Your task to perform on an android device: Open accessibility settings Image 0: 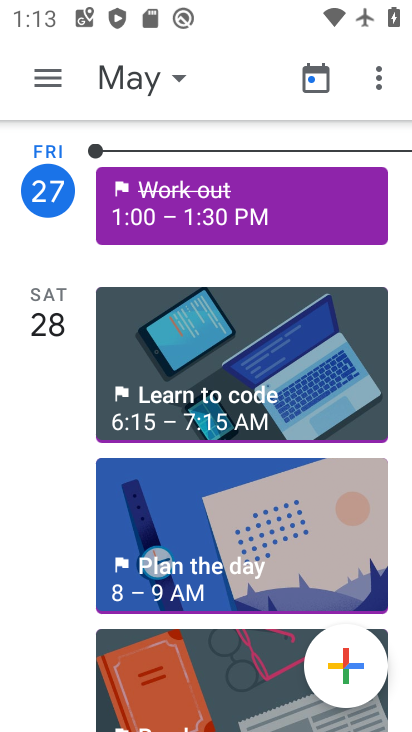
Step 0: press home button
Your task to perform on an android device: Open accessibility settings Image 1: 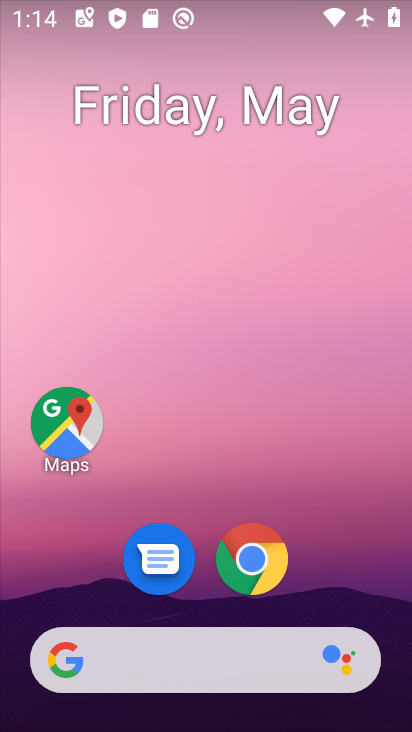
Step 1: drag from (332, 558) to (235, 137)
Your task to perform on an android device: Open accessibility settings Image 2: 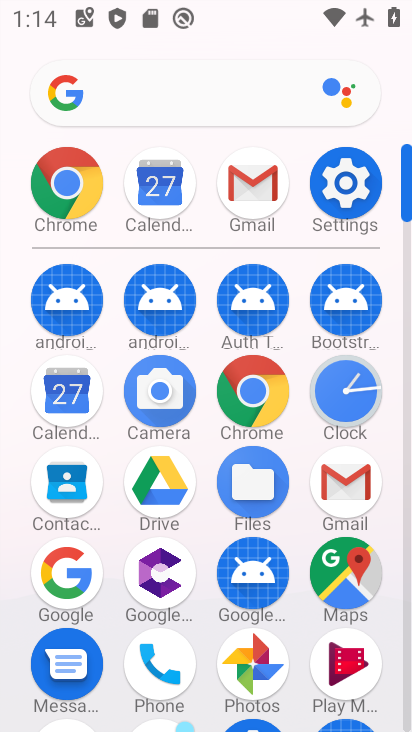
Step 2: click (330, 176)
Your task to perform on an android device: Open accessibility settings Image 3: 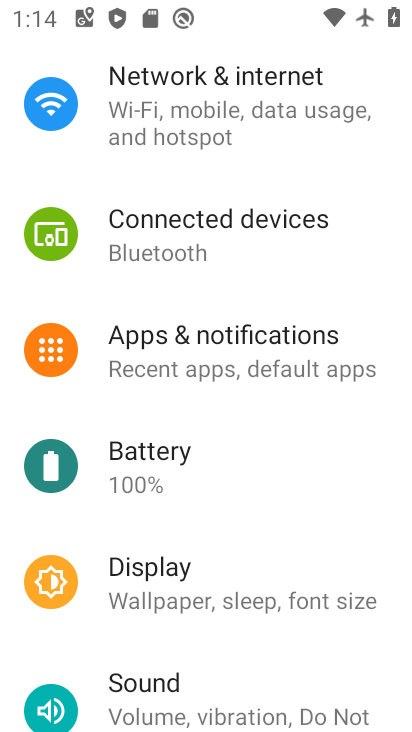
Step 3: drag from (270, 595) to (279, 157)
Your task to perform on an android device: Open accessibility settings Image 4: 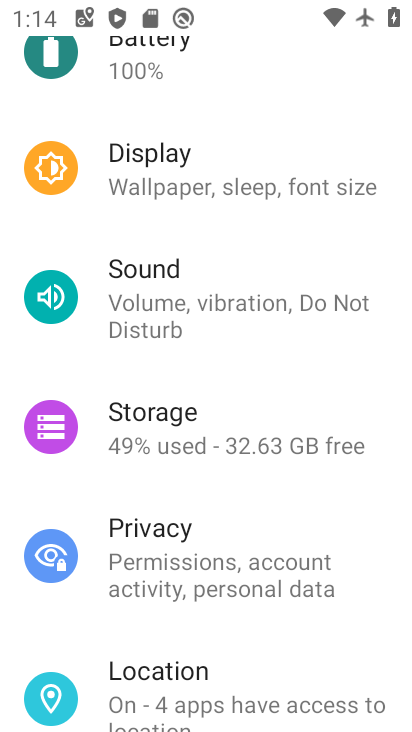
Step 4: drag from (298, 586) to (288, 280)
Your task to perform on an android device: Open accessibility settings Image 5: 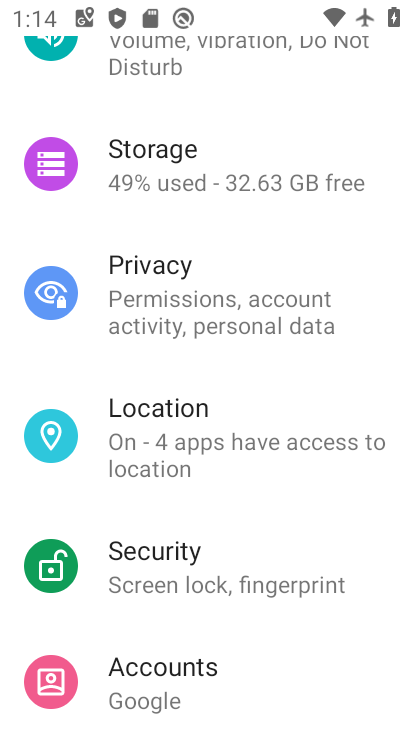
Step 5: click (289, 270)
Your task to perform on an android device: Open accessibility settings Image 6: 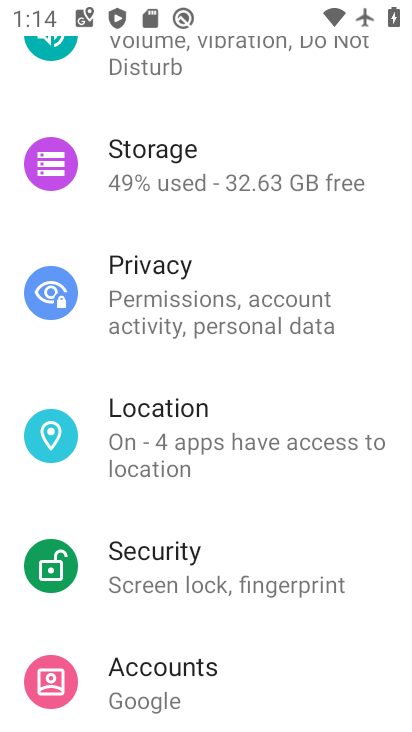
Step 6: drag from (184, 530) to (237, 259)
Your task to perform on an android device: Open accessibility settings Image 7: 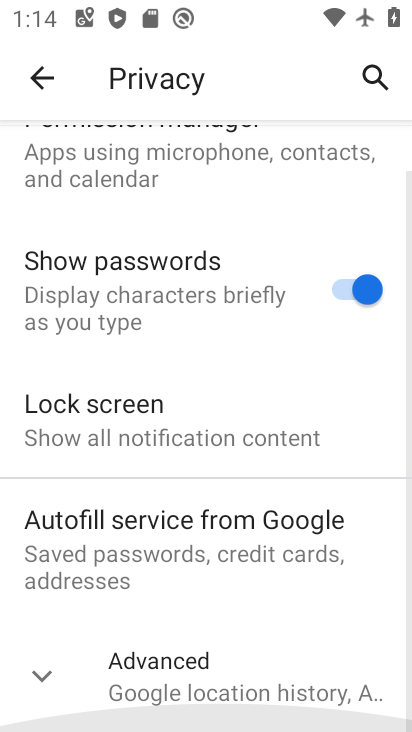
Step 7: click (237, 259)
Your task to perform on an android device: Open accessibility settings Image 8: 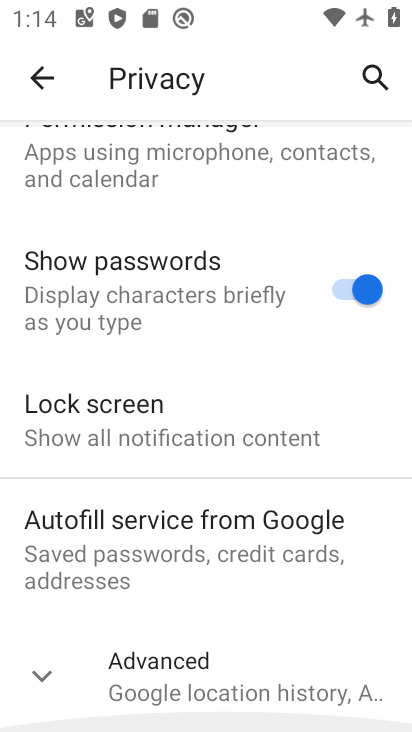
Step 8: click (237, 259)
Your task to perform on an android device: Open accessibility settings Image 9: 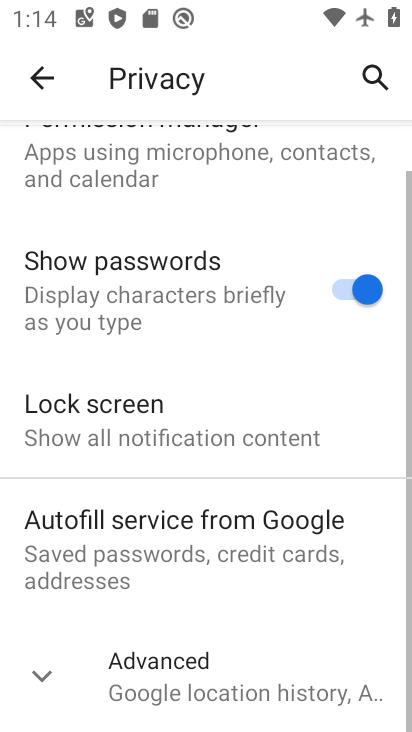
Step 9: click (36, 80)
Your task to perform on an android device: Open accessibility settings Image 10: 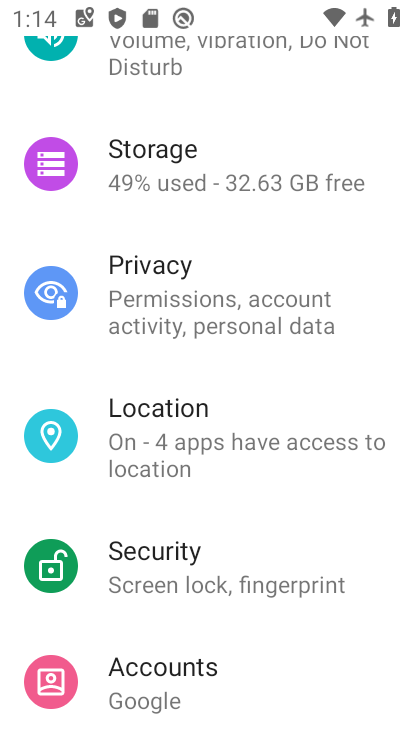
Step 10: drag from (227, 609) to (279, 206)
Your task to perform on an android device: Open accessibility settings Image 11: 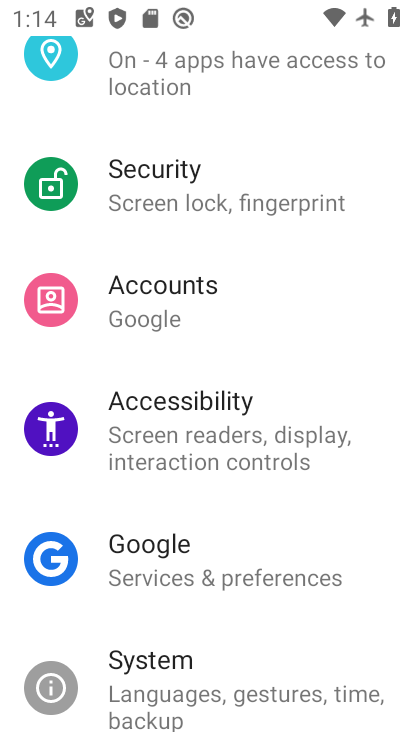
Step 11: click (254, 417)
Your task to perform on an android device: Open accessibility settings Image 12: 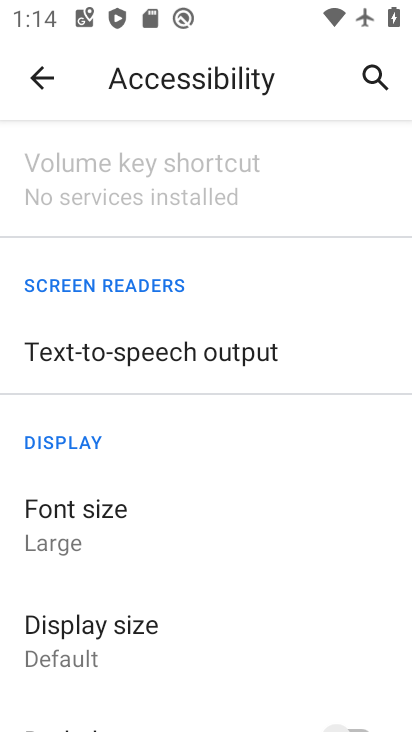
Step 12: task complete